Your task to perform on an android device: Open the map Image 0: 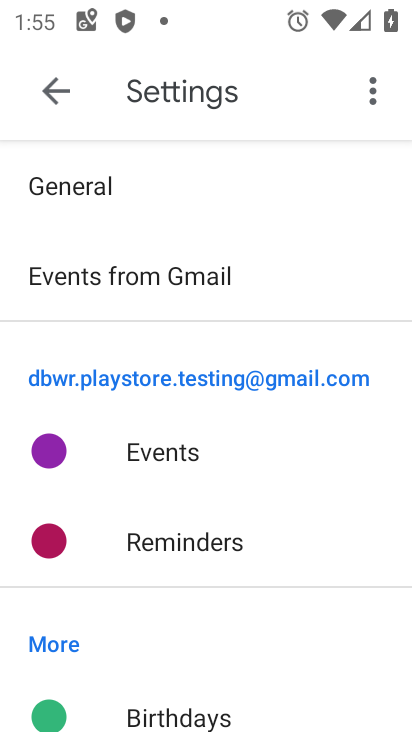
Step 0: press home button
Your task to perform on an android device: Open the map Image 1: 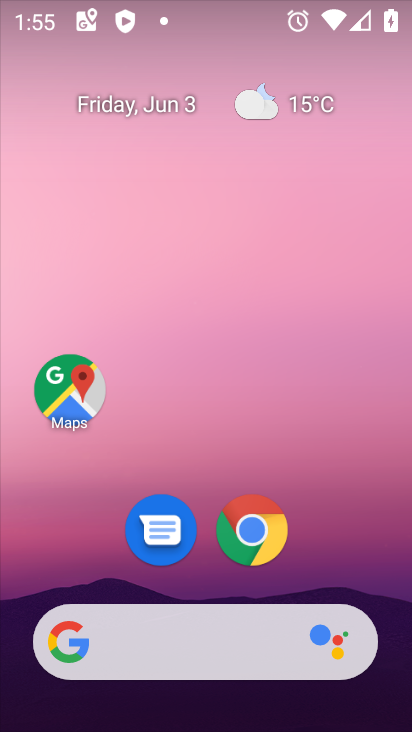
Step 1: click (60, 372)
Your task to perform on an android device: Open the map Image 2: 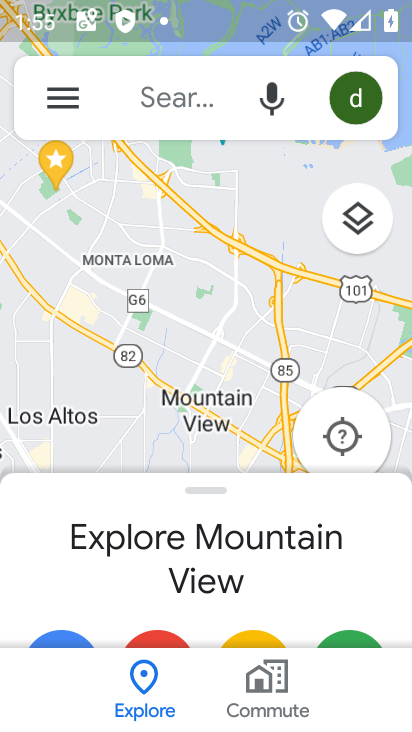
Step 2: task complete